Your task to perform on an android device: turn off location history Image 0: 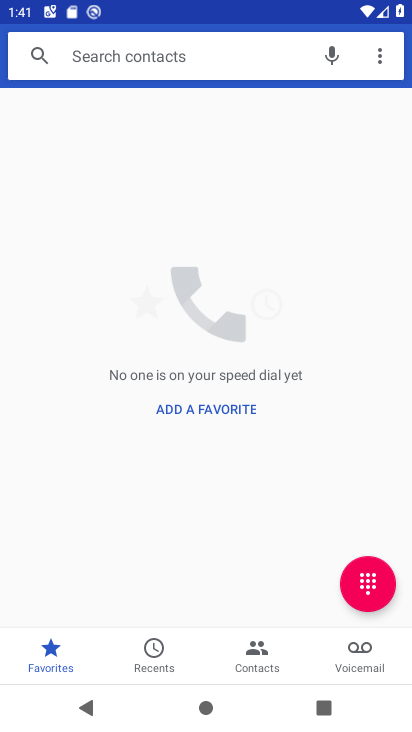
Step 0: press home button
Your task to perform on an android device: turn off location history Image 1: 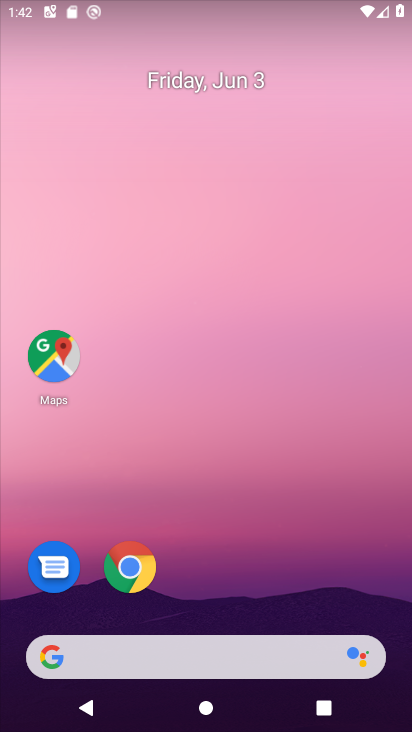
Step 1: drag from (219, 573) to (215, 294)
Your task to perform on an android device: turn off location history Image 2: 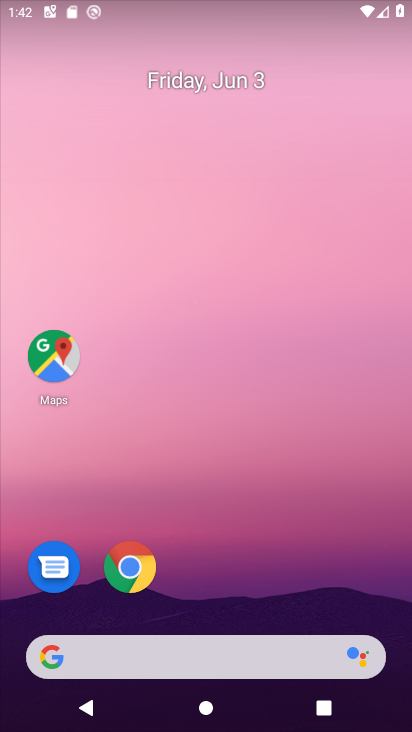
Step 2: click (248, 618)
Your task to perform on an android device: turn off location history Image 3: 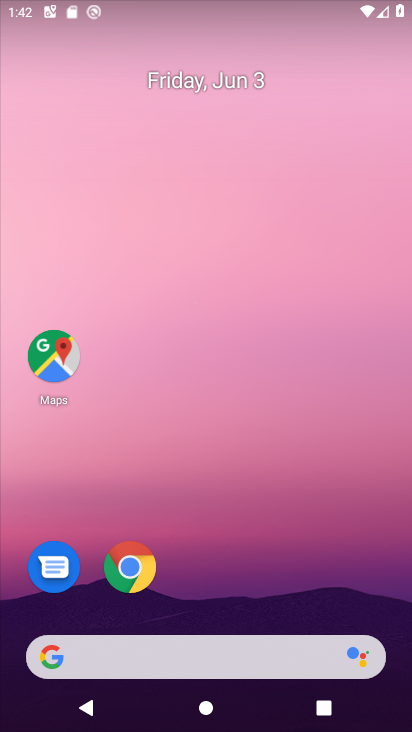
Step 3: drag from (211, 619) to (185, 276)
Your task to perform on an android device: turn off location history Image 4: 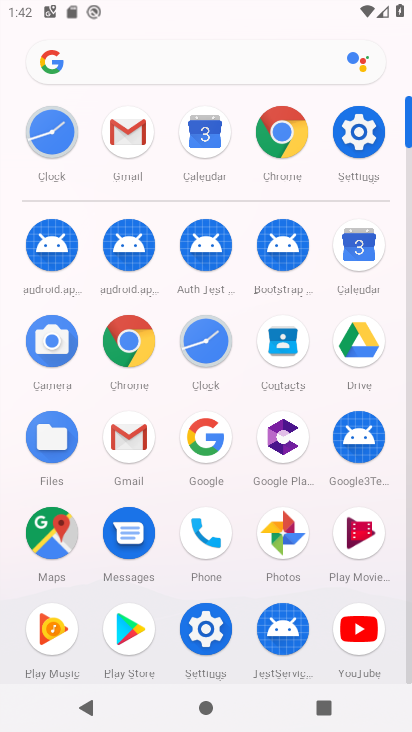
Step 4: click (371, 127)
Your task to perform on an android device: turn off location history Image 5: 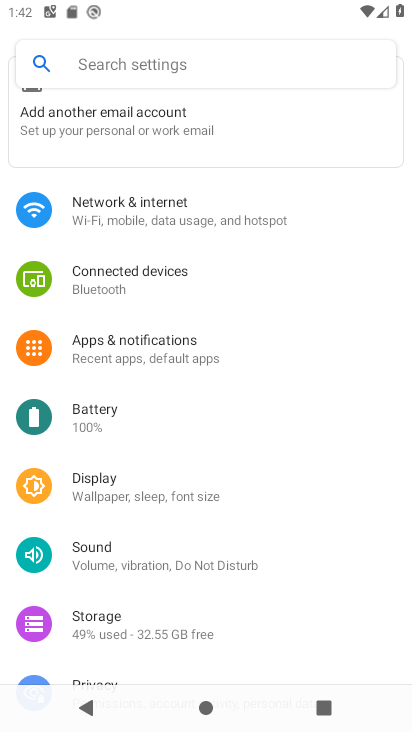
Step 5: drag from (164, 546) to (210, 253)
Your task to perform on an android device: turn off location history Image 6: 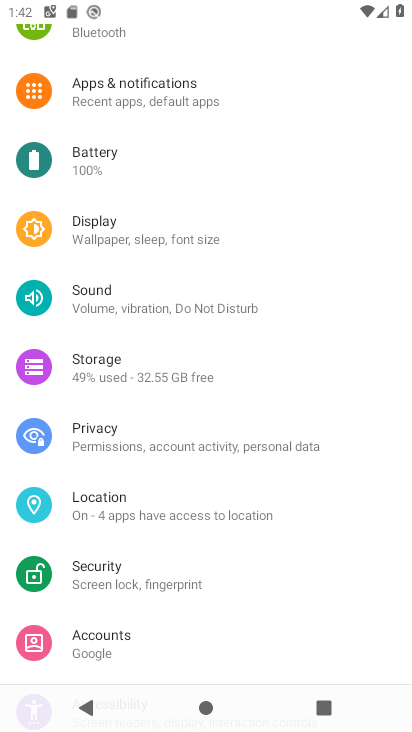
Step 6: click (160, 501)
Your task to perform on an android device: turn off location history Image 7: 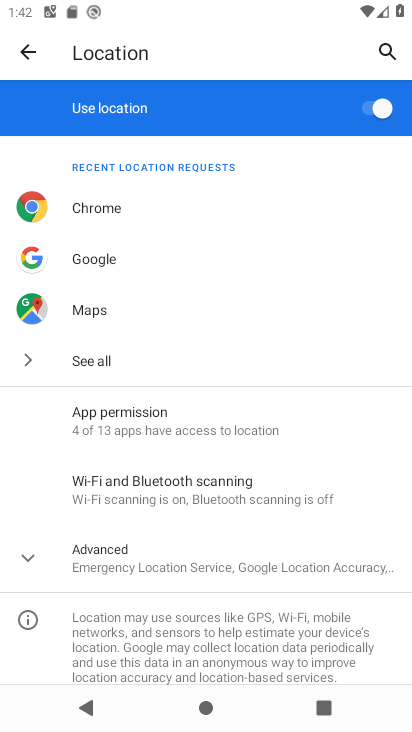
Step 7: click (195, 574)
Your task to perform on an android device: turn off location history Image 8: 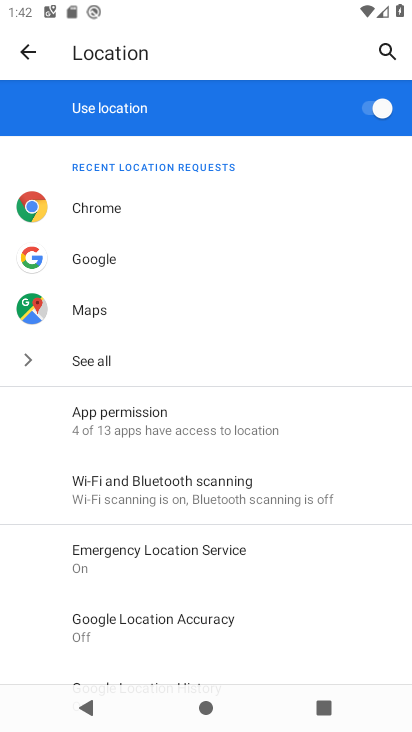
Step 8: click (238, 543)
Your task to perform on an android device: turn off location history Image 9: 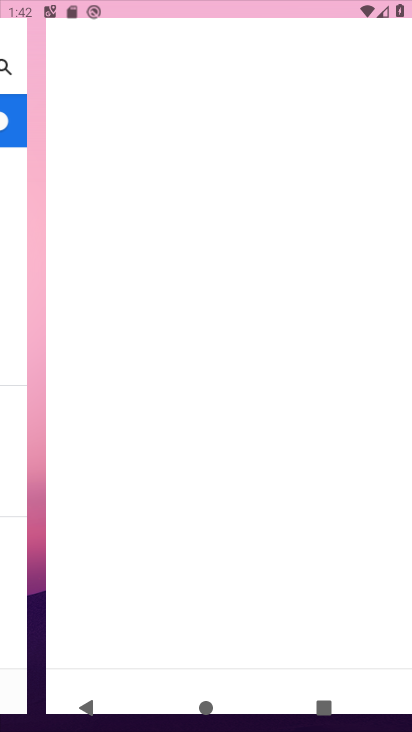
Step 9: click (271, 552)
Your task to perform on an android device: turn off location history Image 10: 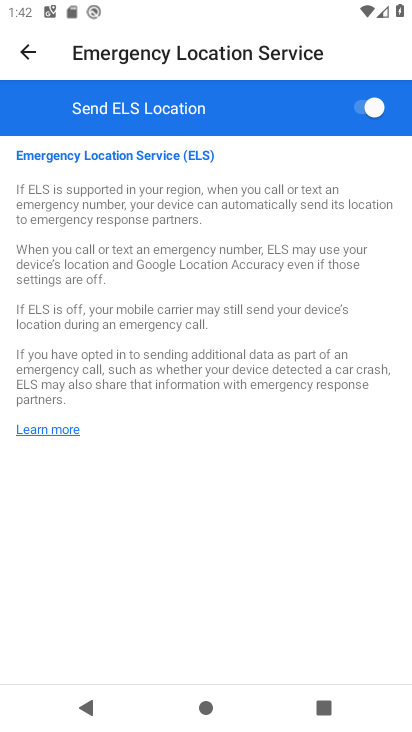
Step 10: click (32, 42)
Your task to perform on an android device: turn off location history Image 11: 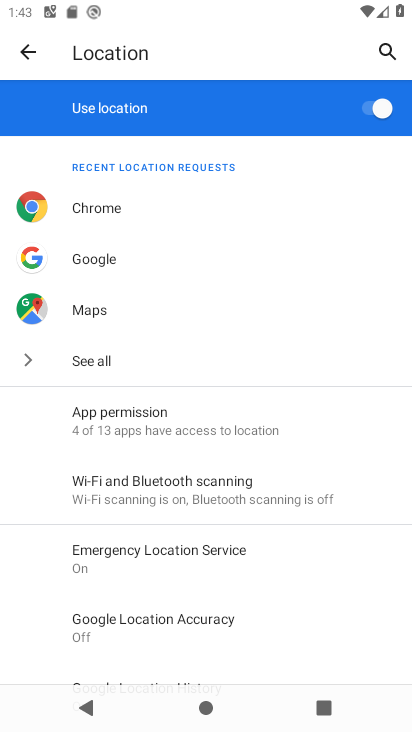
Step 11: click (173, 616)
Your task to perform on an android device: turn off location history Image 12: 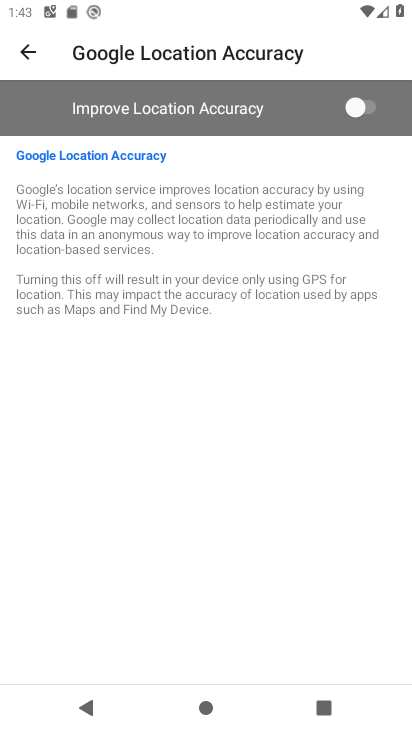
Step 12: task complete